Your task to perform on an android device: Open battery settings Image 0: 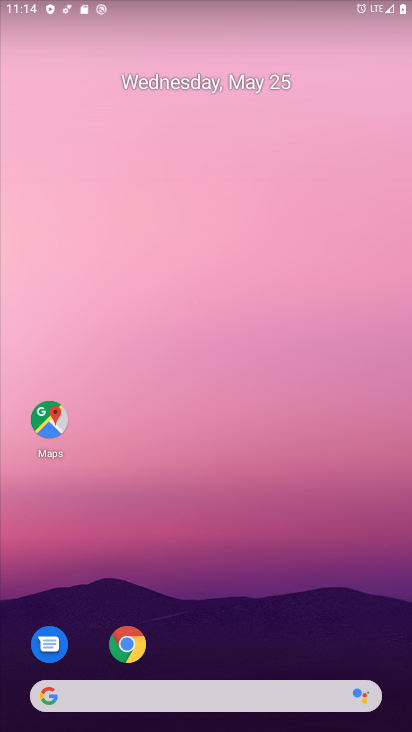
Step 0: drag from (259, 615) to (213, 181)
Your task to perform on an android device: Open battery settings Image 1: 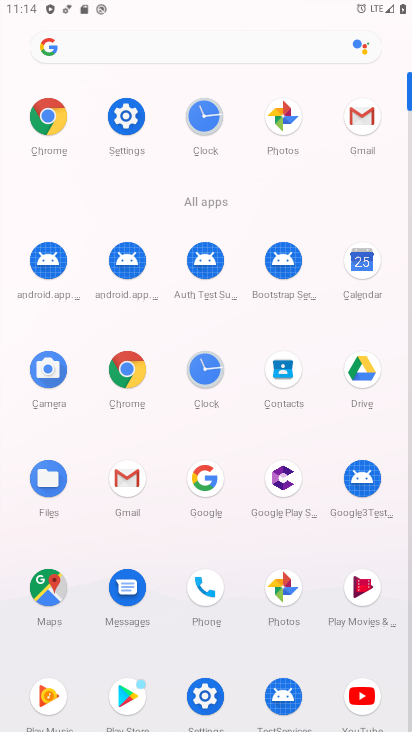
Step 1: click (125, 118)
Your task to perform on an android device: Open battery settings Image 2: 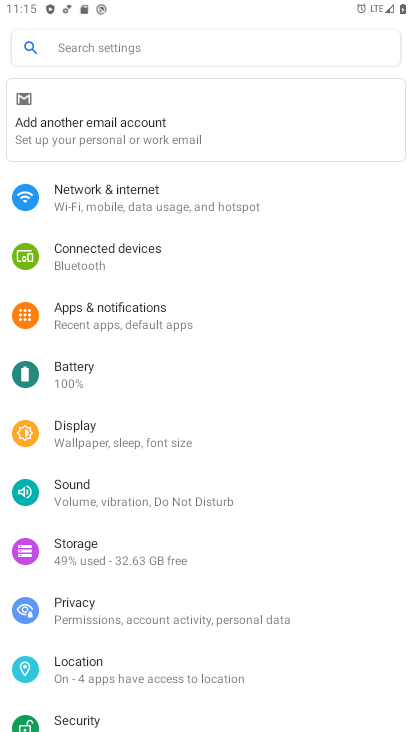
Step 2: click (81, 367)
Your task to perform on an android device: Open battery settings Image 3: 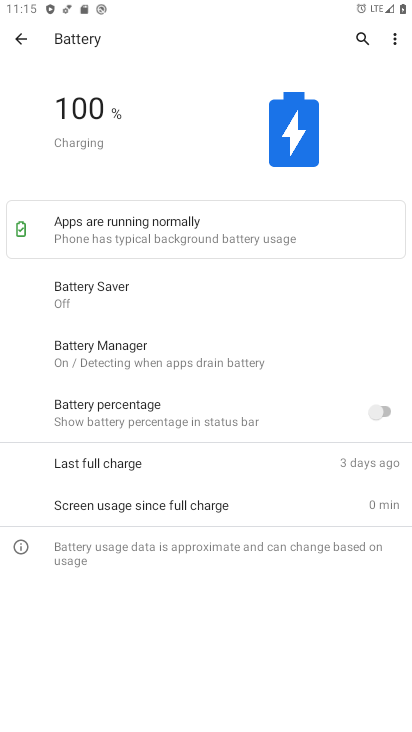
Step 3: task complete